Your task to perform on an android device: turn on location history Image 0: 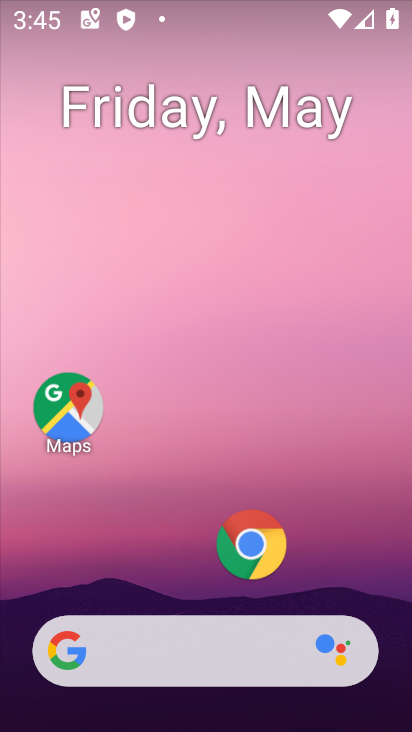
Step 0: drag from (180, 588) to (240, 200)
Your task to perform on an android device: turn on location history Image 1: 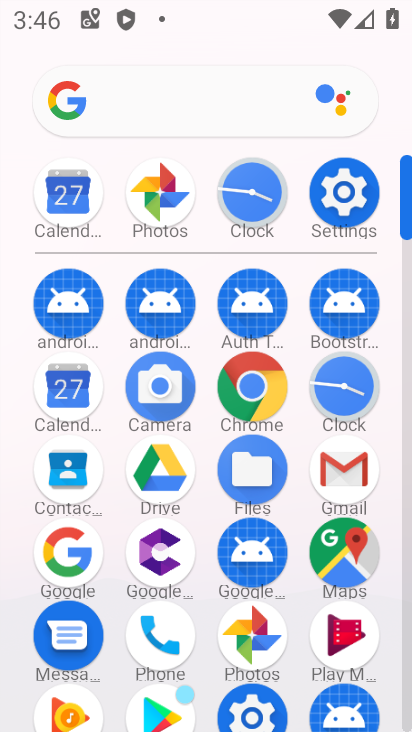
Step 1: click (321, 192)
Your task to perform on an android device: turn on location history Image 2: 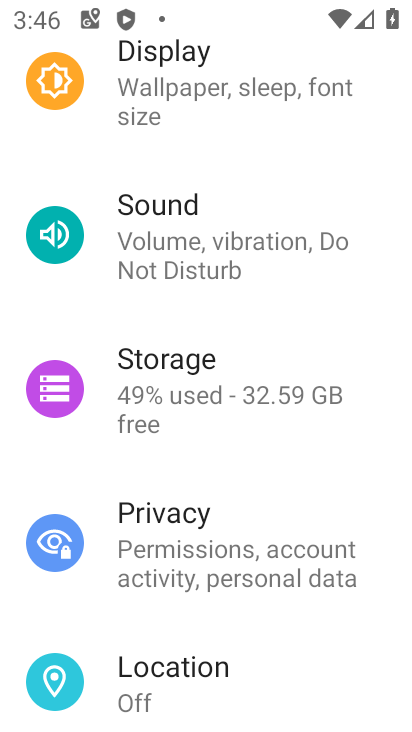
Step 2: drag from (239, 573) to (222, 332)
Your task to perform on an android device: turn on location history Image 3: 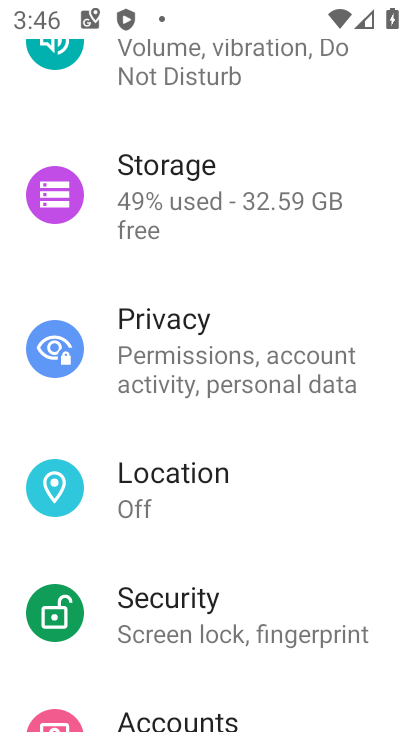
Step 3: click (215, 474)
Your task to perform on an android device: turn on location history Image 4: 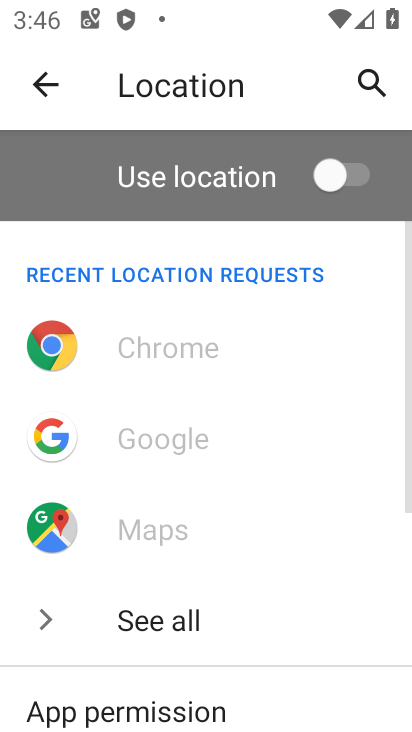
Step 4: drag from (273, 636) to (300, 271)
Your task to perform on an android device: turn on location history Image 5: 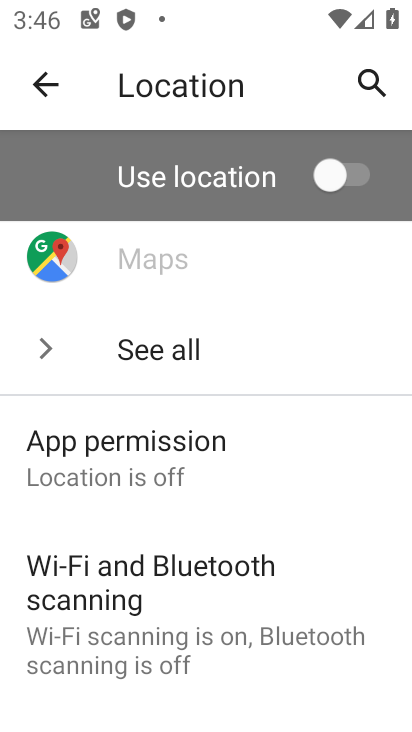
Step 5: drag from (242, 624) to (258, 308)
Your task to perform on an android device: turn on location history Image 6: 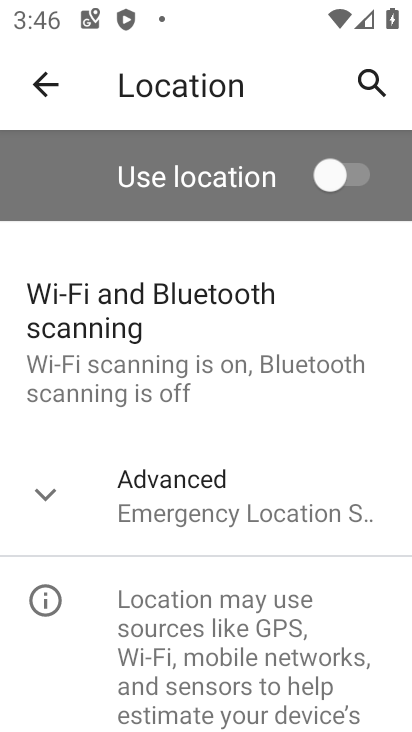
Step 6: drag from (184, 653) to (226, 445)
Your task to perform on an android device: turn on location history Image 7: 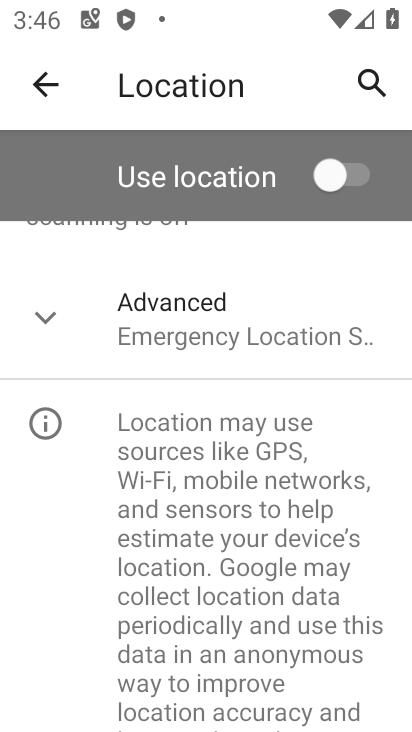
Step 7: click (227, 336)
Your task to perform on an android device: turn on location history Image 8: 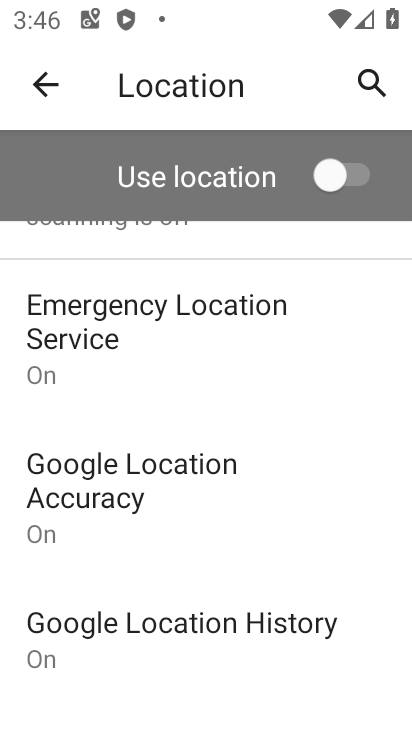
Step 8: click (171, 649)
Your task to perform on an android device: turn on location history Image 9: 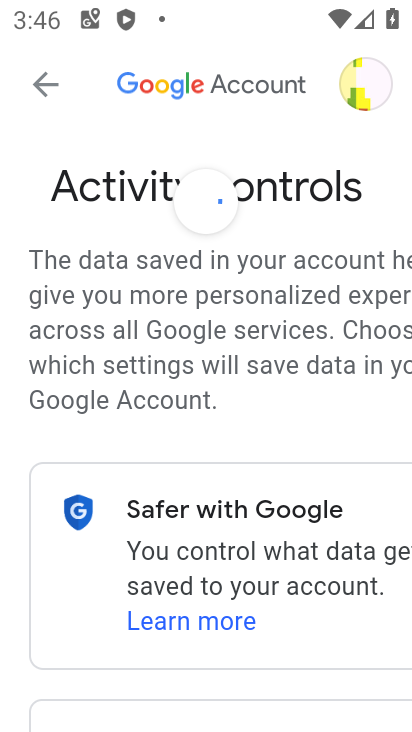
Step 9: drag from (199, 686) to (239, 314)
Your task to perform on an android device: turn on location history Image 10: 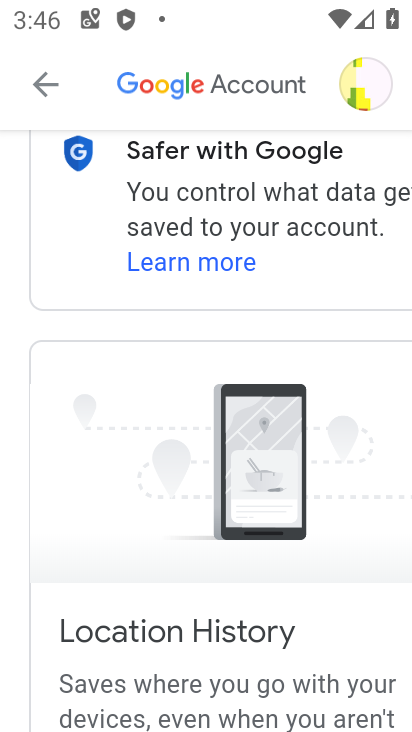
Step 10: drag from (239, 696) to (260, 384)
Your task to perform on an android device: turn on location history Image 11: 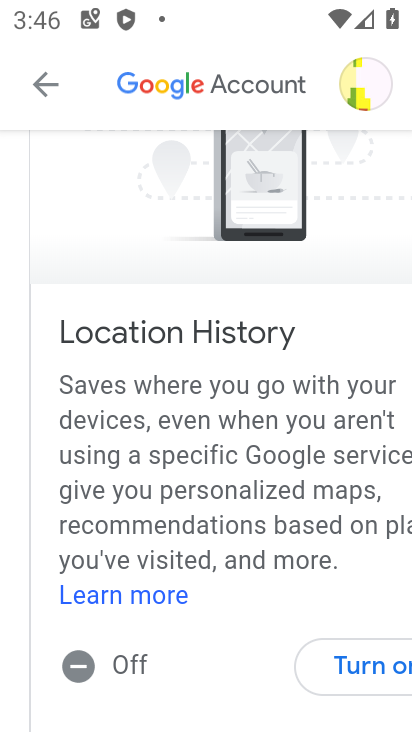
Step 11: click (348, 653)
Your task to perform on an android device: turn on location history Image 12: 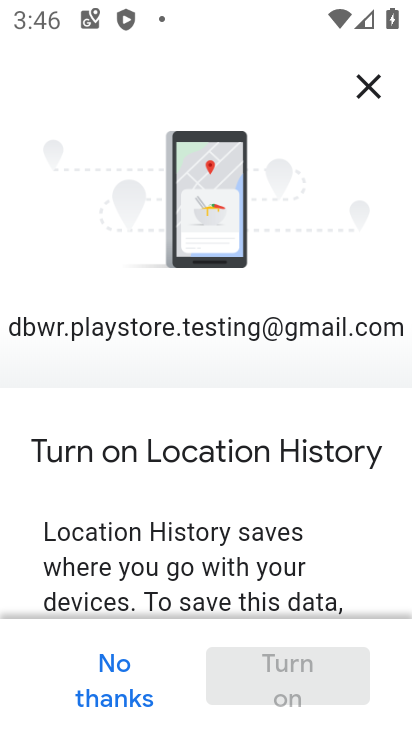
Step 12: drag from (301, 594) to (290, 240)
Your task to perform on an android device: turn on location history Image 13: 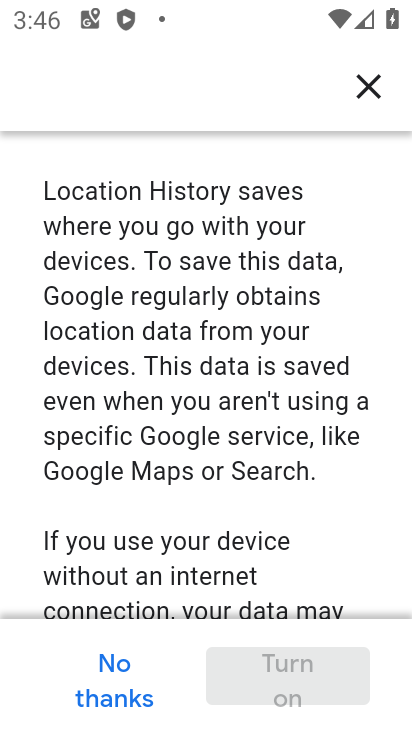
Step 13: drag from (284, 494) to (304, 170)
Your task to perform on an android device: turn on location history Image 14: 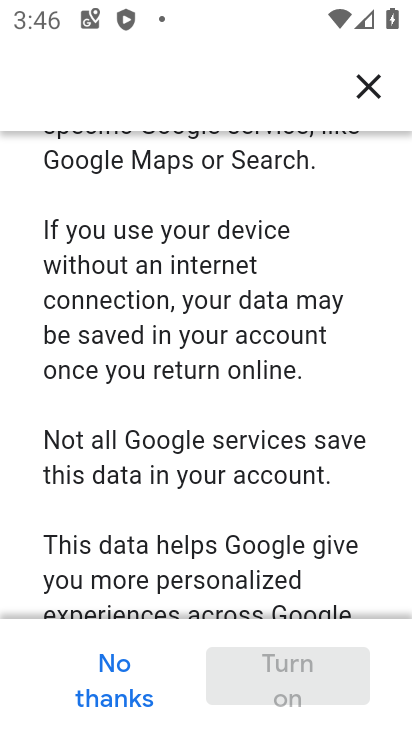
Step 14: drag from (274, 550) to (330, 195)
Your task to perform on an android device: turn on location history Image 15: 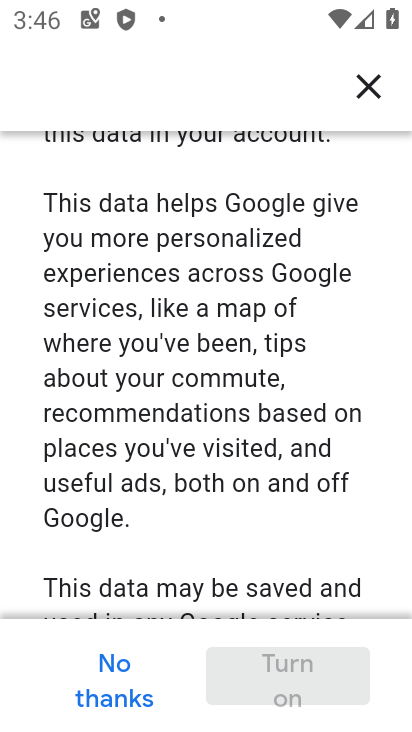
Step 15: drag from (298, 585) to (298, 200)
Your task to perform on an android device: turn on location history Image 16: 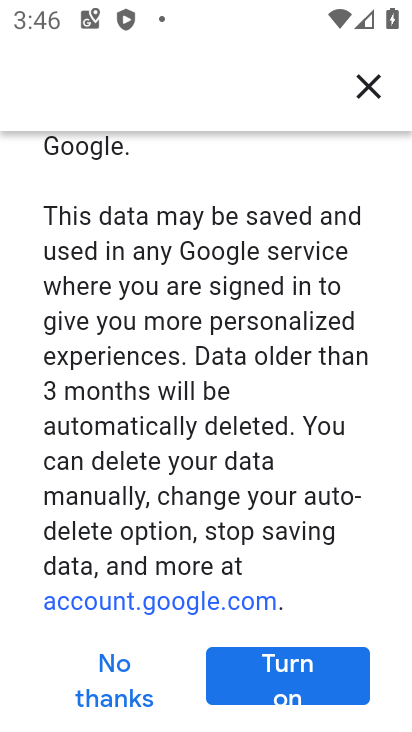
Step 16: drag from (263, 590) to (268, 202)
Your task to perform on an android device: turn on location history Image 17: 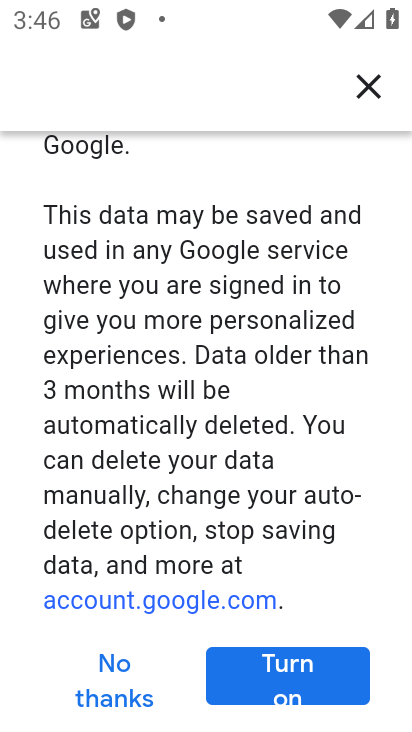
Step 17: click (294, 660)
Your task to perform on an android device: turn on location history Image 18: 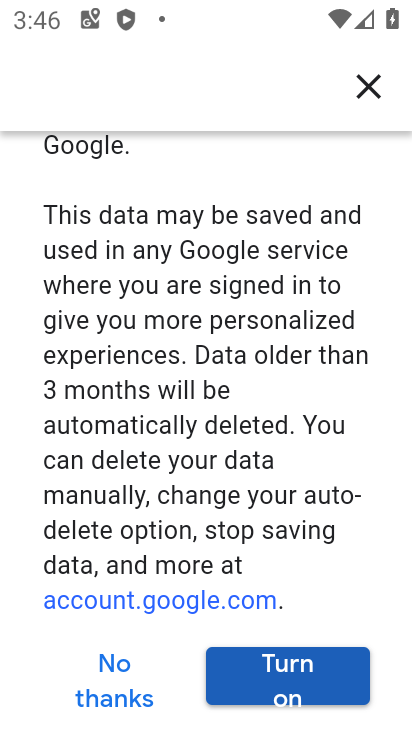
Step 18: click (291, 671)
Your task to perform on an android device: turn on location history Image 19: 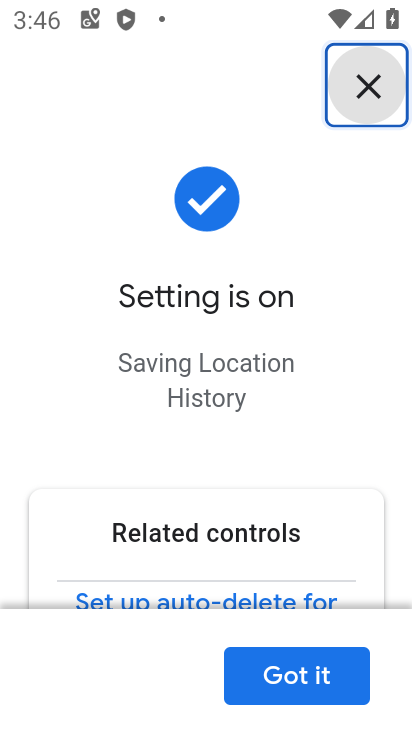
Step 19: task complete